Your task to perform on an android device: Go to Wikipedia Image 0: 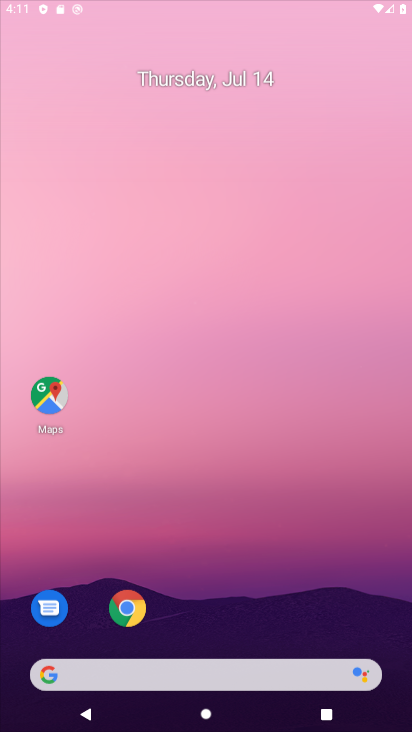
Step 0: click (396, 90)
Your task to perform on an android device: Go to Wikipedia Image 1: 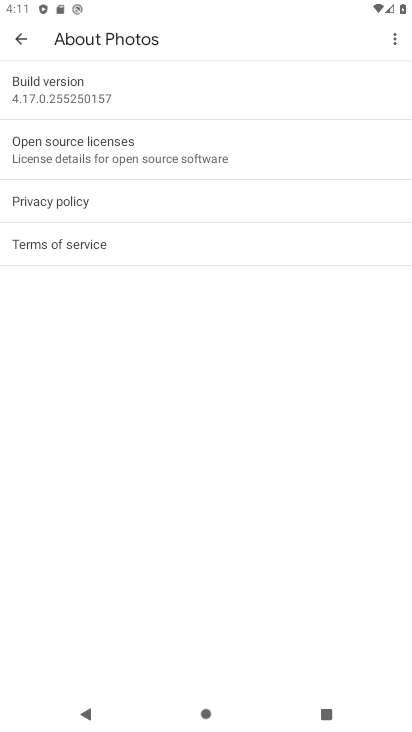
Step 1: press home button
Your task to perform on an android device: Go to Wikipedia Image 2: 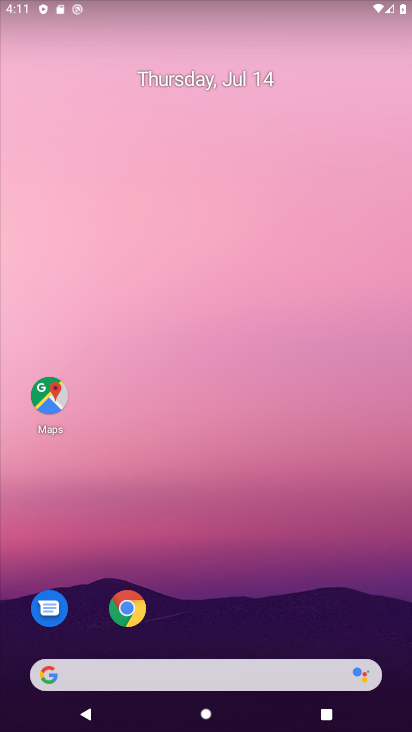
Step 2: click (141, 615)
Your task to perform on an android device: Go to Wikipedia Image 3: 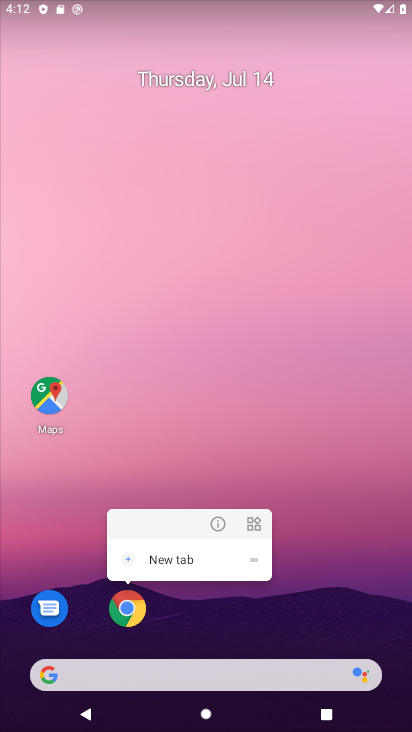
Step 3: click (134, 615)
Your task to perform on an android device: Go to Wikipedia Image 4: 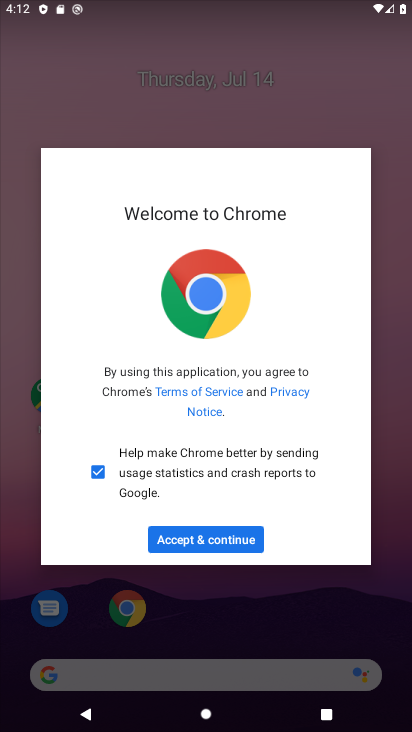
Step 4: click (238, 536)
Your task to perform on an android device: Go to Wikipedia Image 5: 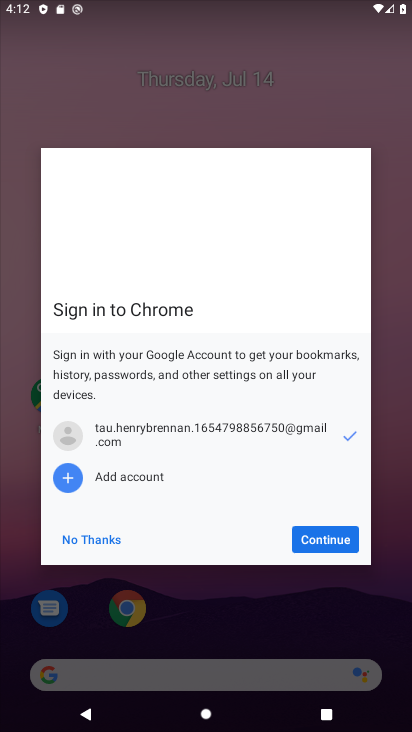
Step 5: click (328, 533)
Your task to perform on an android device: Go to Wikipedia Image 6: 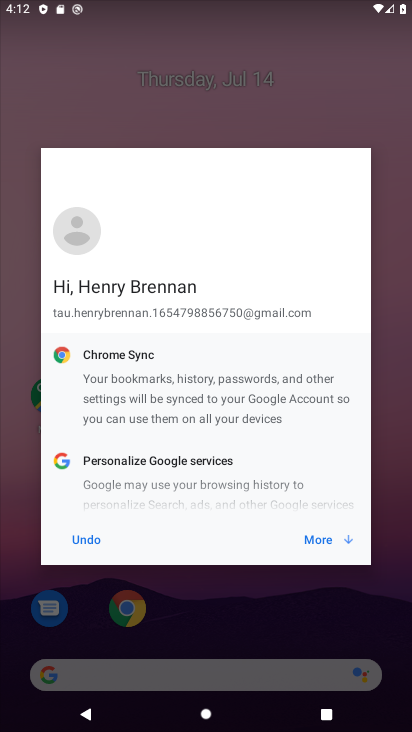
Step 6: click (328, 533)
Your task to perform on an android device: Go to Wikipedia Image 7: 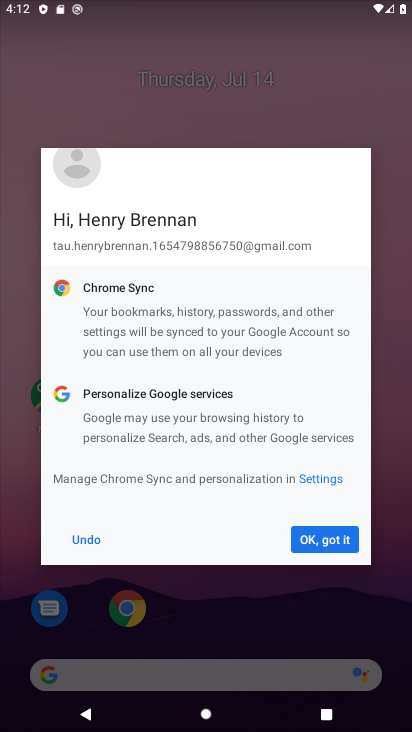
Step 7: click (329, 534)
Your task to perform on an android device: Go to Wikipedia Image 8: 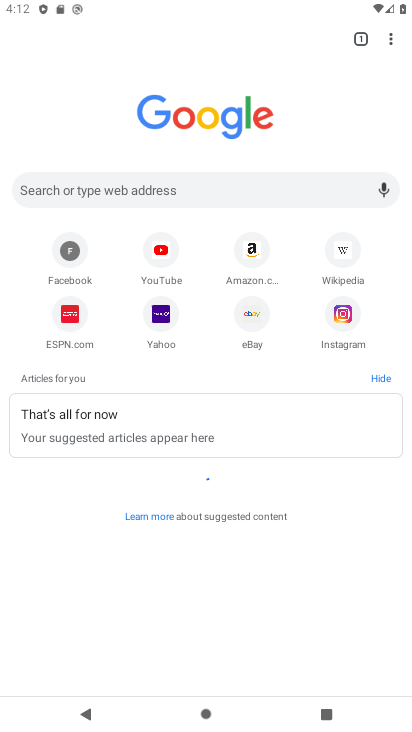
Step 8: click (346, 263)
Your task to perform on an android device: Go to Wikipedia Image 9: 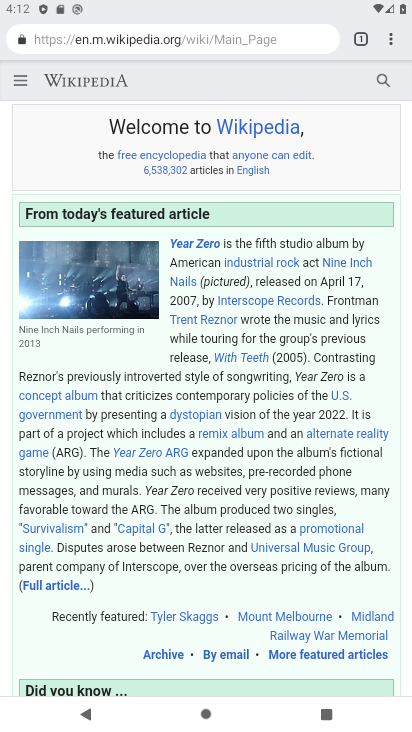
Step 9: task complete